Your task to perform on an android device: Open settings Image 0: 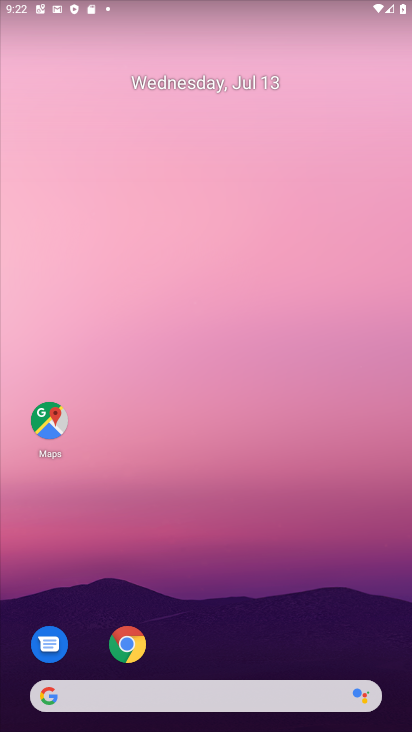
Step 0: drag from (238, 661) to (313, 80)
Your task to perform on an android device: Open settings Image 1: 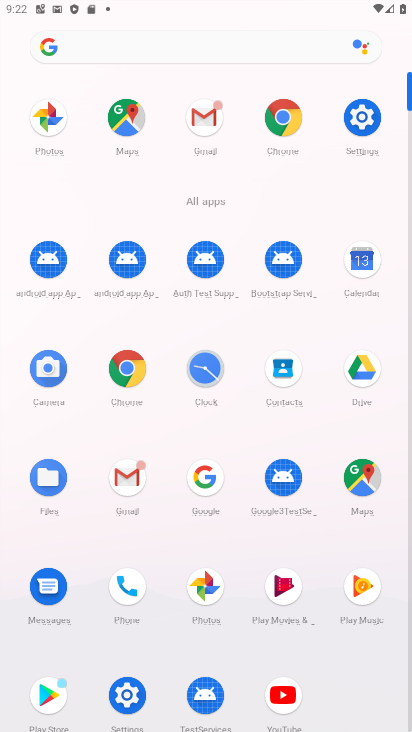
Step 1: click (126, 694)
Your task to perform on an android device: Open settings Image 2: 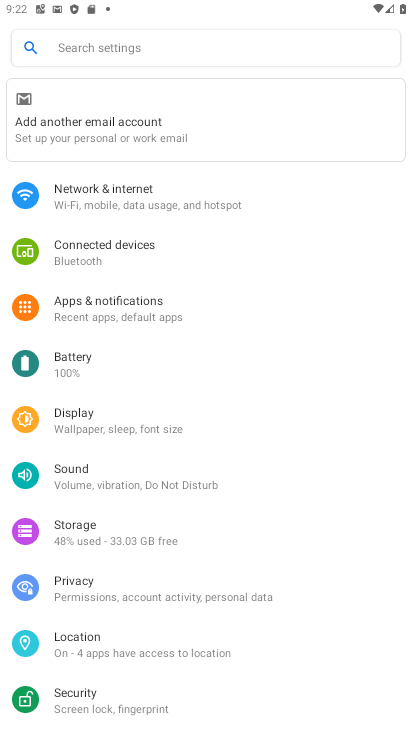
Step 2: task complete